Your task to perform on an android device: Open Amazon Image 0: 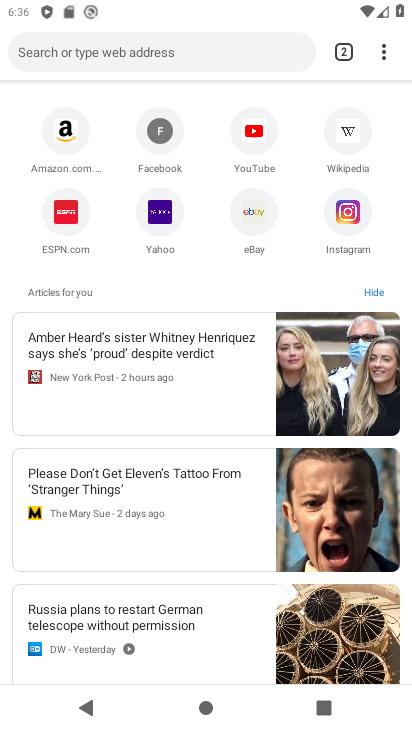
Step 0: press home button
Your task to perform on an android device: Open Amazon Image 1: 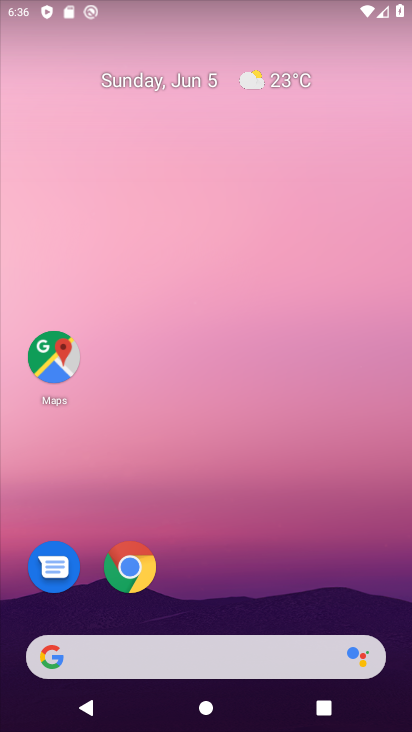
Step 1: drag from (396, 635) to (296, 35)
Your task to perform on an android device: Open Amazon Image 2: 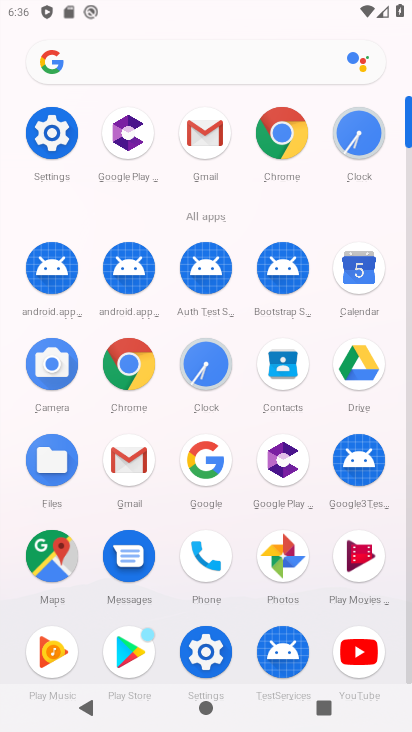
Step 2: click (213, 463)
Your task to perform on an android device: Open Amazon Image 3: 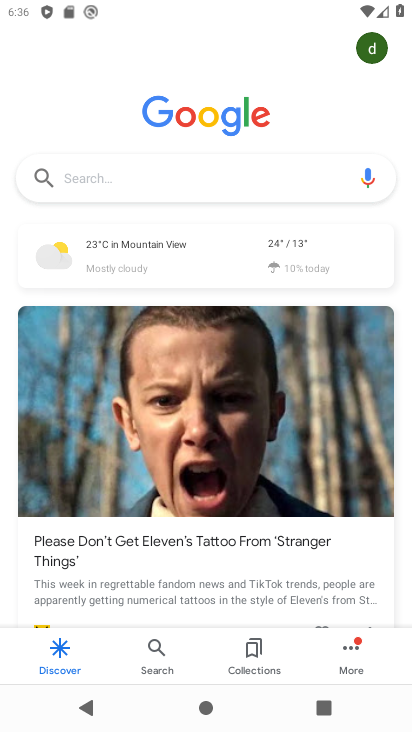
Step 3: click (111, 184)
Your task to perform on an android device: Open Amazon Image 4: 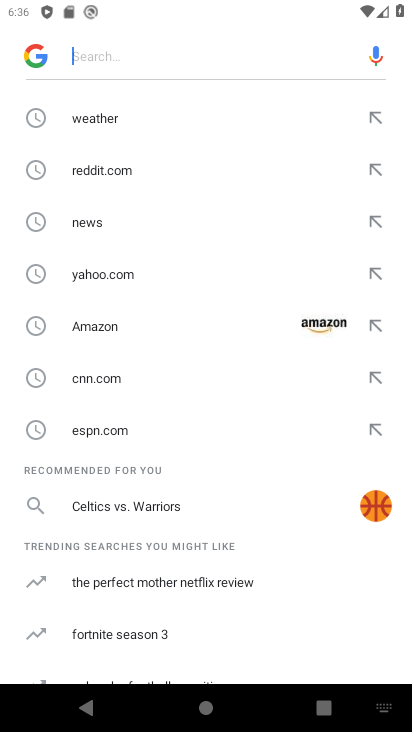
Step 4: click (145, 316)
Your task to perform on an android device: Open Amazon Image 5: 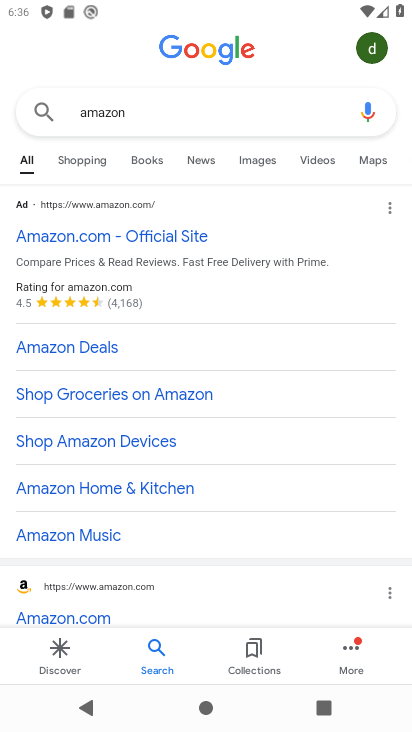
Step 5: task complete